Your task to perform on an android device: turn on priority inbox in the gmail app Image 0: 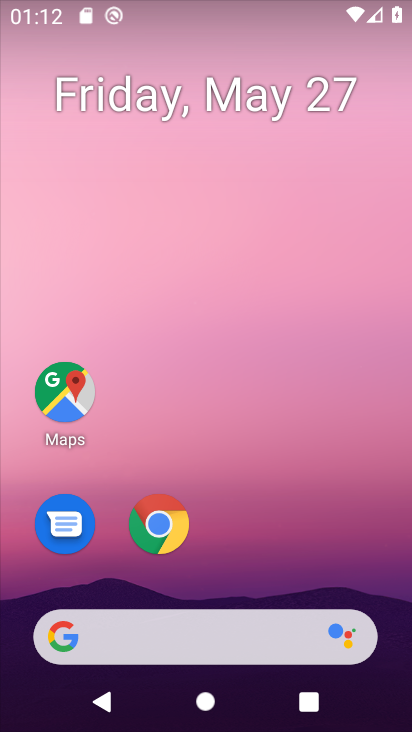
Step 0: drag from (254, 550) to (325, 8)
Your task to perform on an android device: turn on priority inbox in the gmail app Image 1: 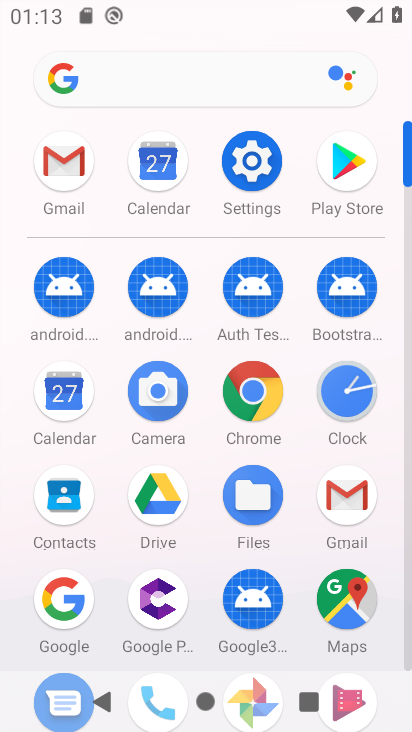
Step 1: click (55, 168)
Your task to perform on an android device: turn on priority inbox in the gmail app Image 2: 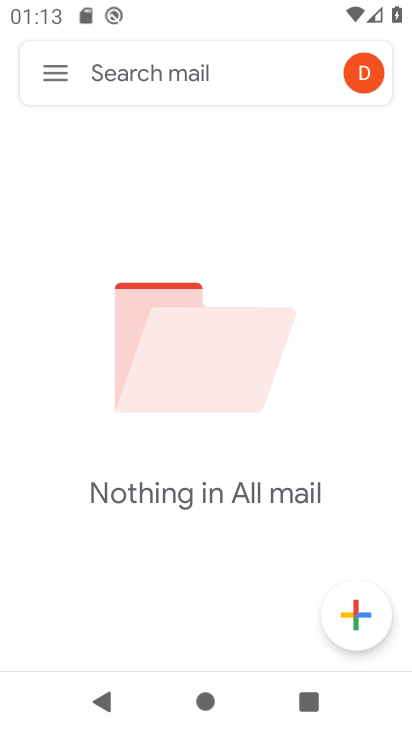
Step 2: click (59, 68)
Your task to perform on an android device: turn on priority inbox in the gmail app Image 3: 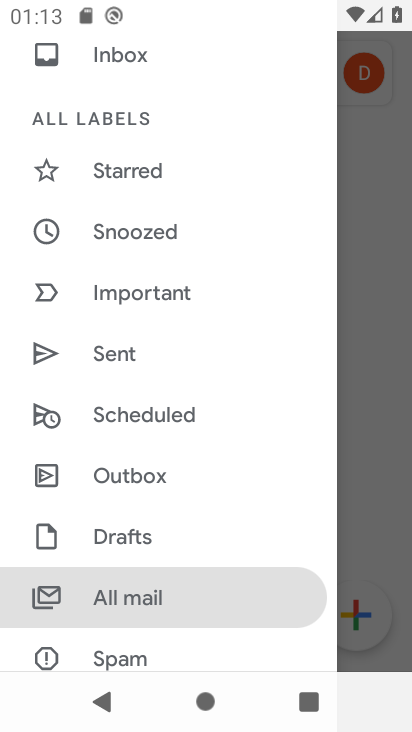
Step 3: drag from (201, 482) to (226, 2)
Your task to perform on an android device: turn on priority inbox in the gmail app Image 4: 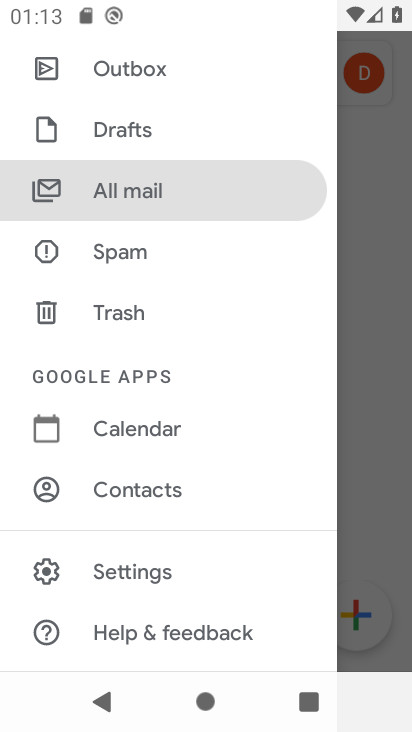
Step 4: click (153, 571)
Your task to perform on an android device: turn on priority inbox in the gmail app Image 5: 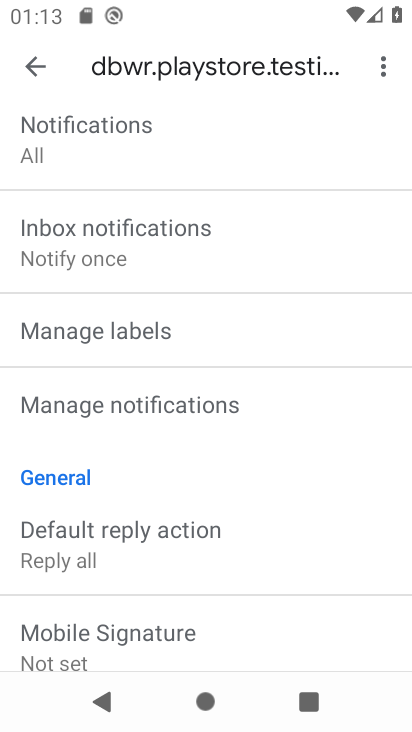
Step 5: drag from (150, 182) to (204, 649)
Your task to perform on an android device: turn on priority inbox in the gmail app Image 6: 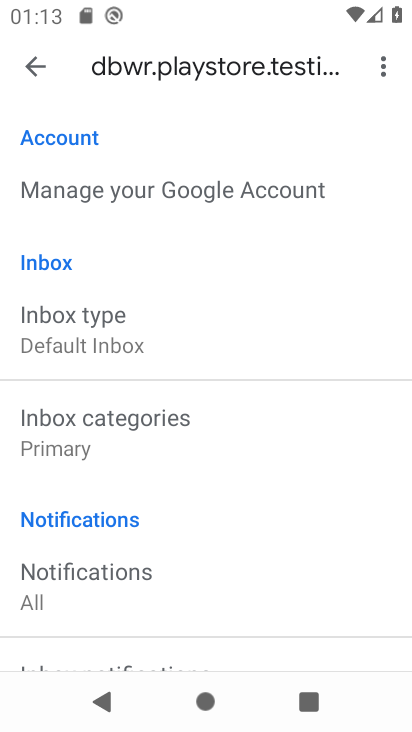
Step 6: click (75, 337)
Your task to perform on an android device: turn on priority inbox in the gmail app Image 7: 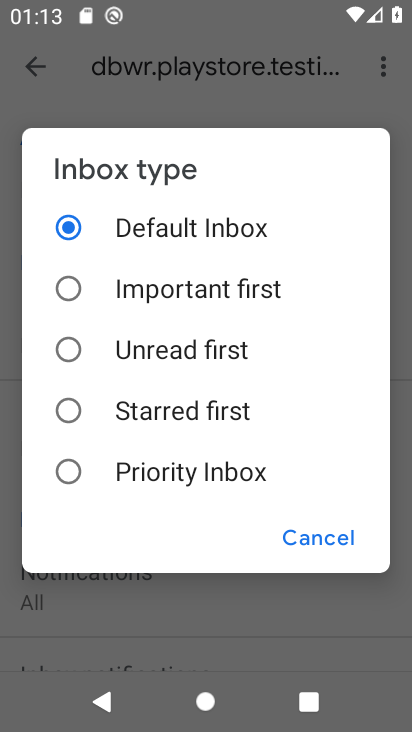
Step 7: click (72, 464)
Your task to perform on an android device: turn on priority inbox in the gmail app Image 8: 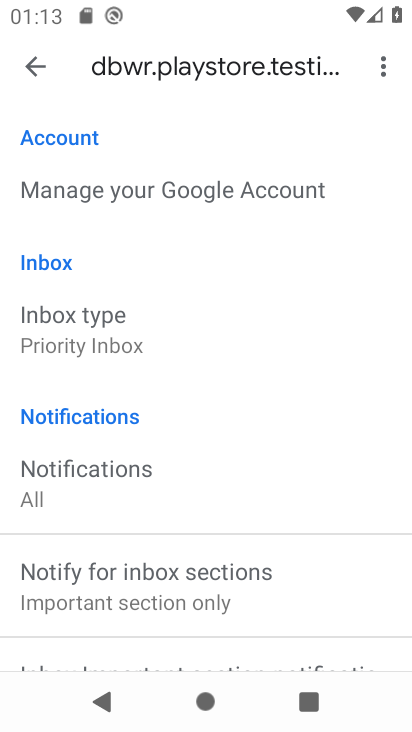
Step 8: task complete